Your task to perform on an android device: Check the weather Image 0: 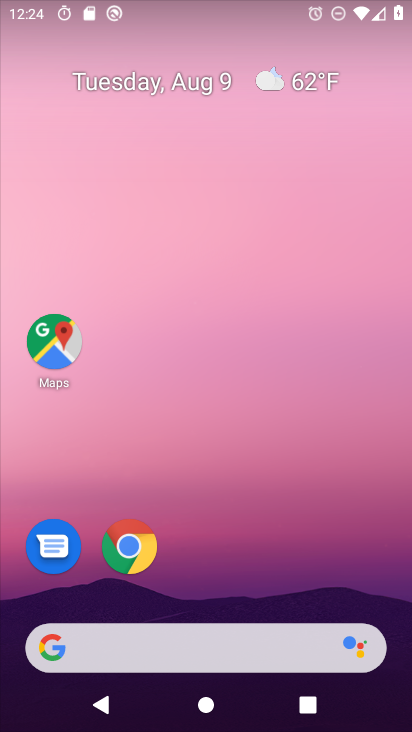
Step 0: press home button
Your task to perform on an android device: Check the weather Image 1: 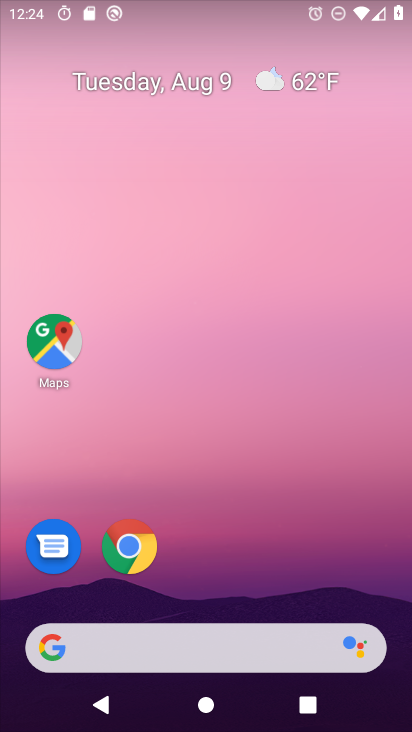
Step 1: drag from (214, 598) to (239, 2)
Your task to perform on an android device: Check the weather Image 2: 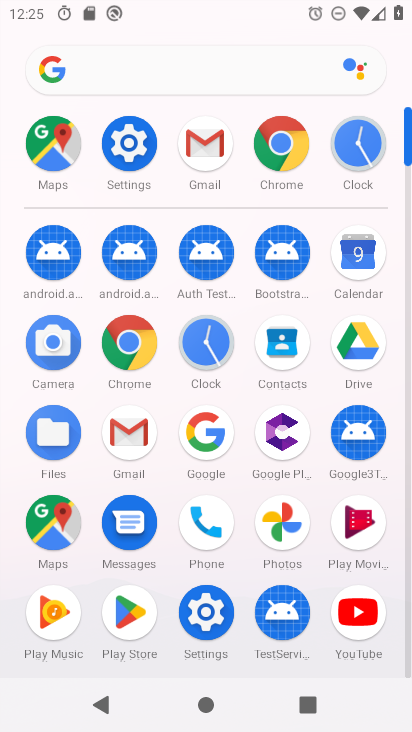
Step 2: press home button
Your task to perform on an android device: Check the weather Image 3: 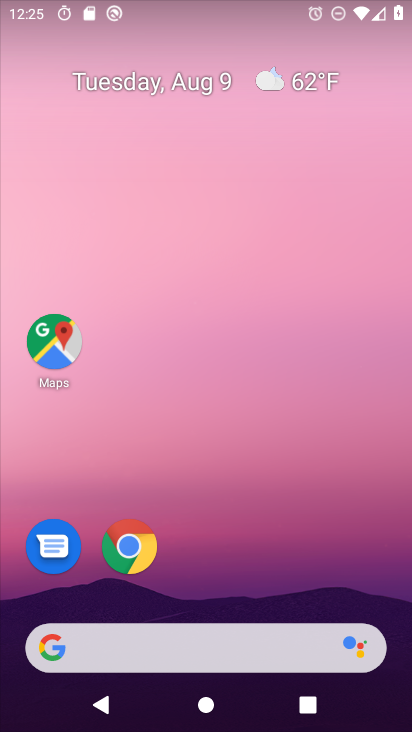
Step 3: click (305, 76)
Your task to perform on an android device: Check the weather Image 4: 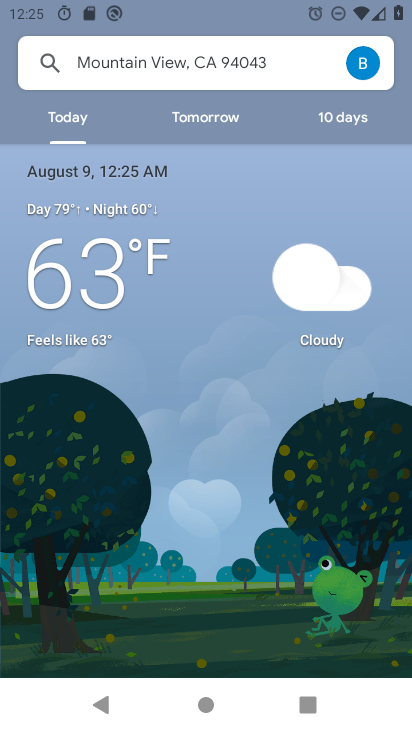
Step 4: task complete